Your task to perform on an android device: When is my next meeting? Image 0: 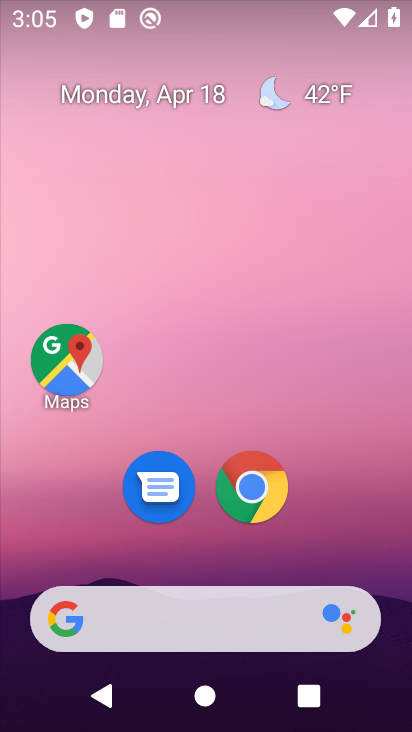
Step 0: drag from (218, 553) to (180, 80)
Your task to perform on an android device: When is my next meeting? Image 1: 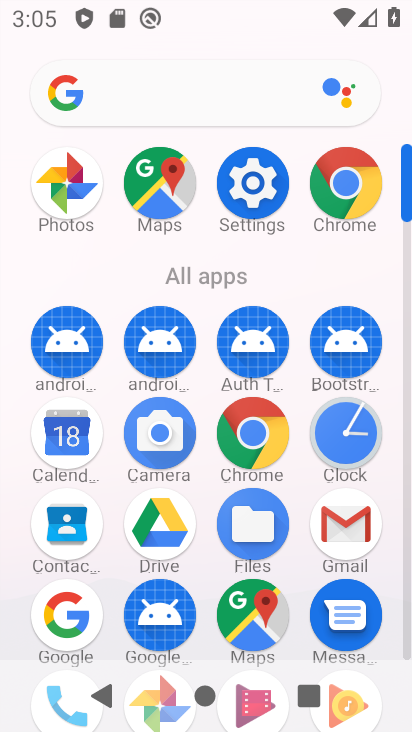
Step 1: click (87, 441)
Your task to perform on an android device: When is my next meeting? Image 2: 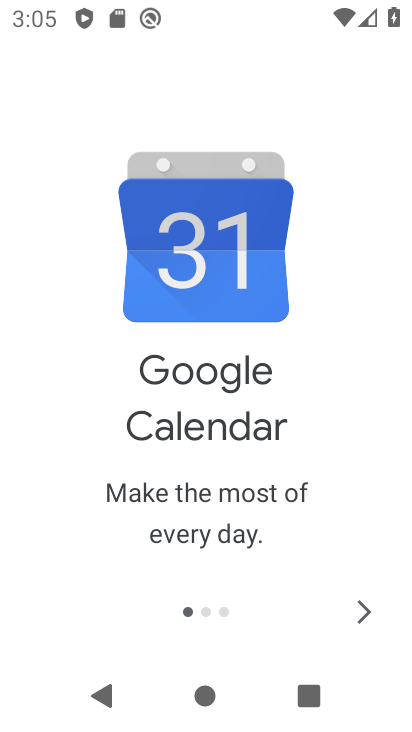
Step 2: click (357, 622)
Your task to perform on an android device: When is my next meeting? Image 3: 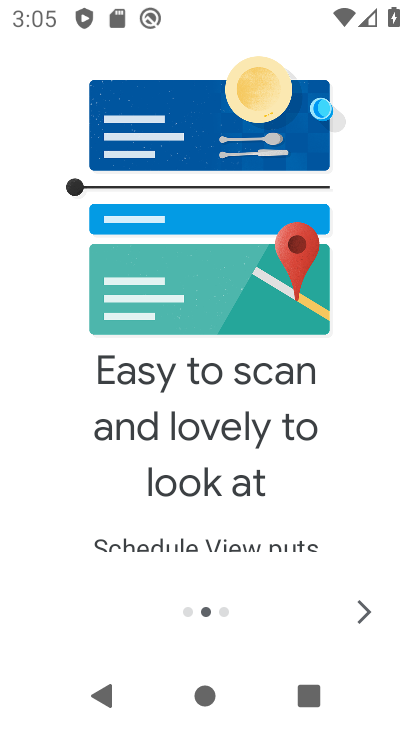
Step 3: click (362, 605)
Your task to perform on an android device: When is my next meeting? Image 4: 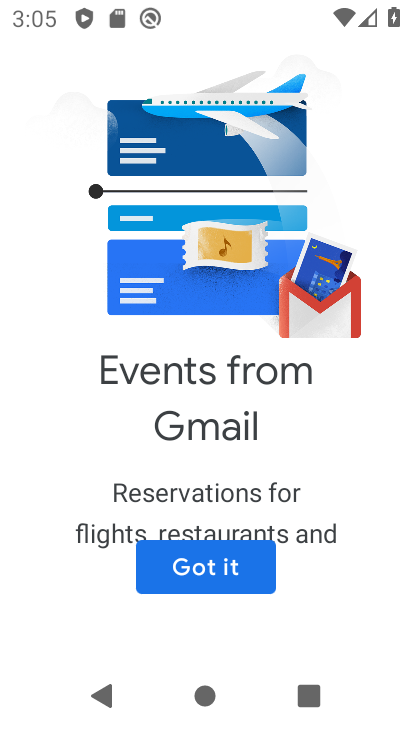
Step 4: click (193, 565)
Your task to perform on an android device: When is my next meeting? Image 5: 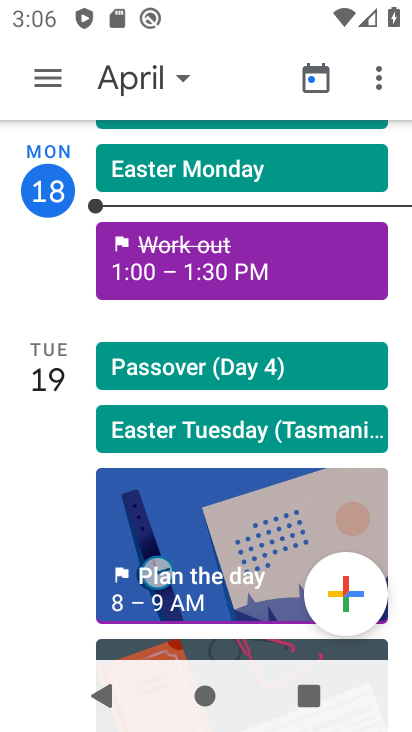
Step 5: drag from (48, 517) to (35, 174)
Your task to perform on an android device: When is my next meeting? Image 6: 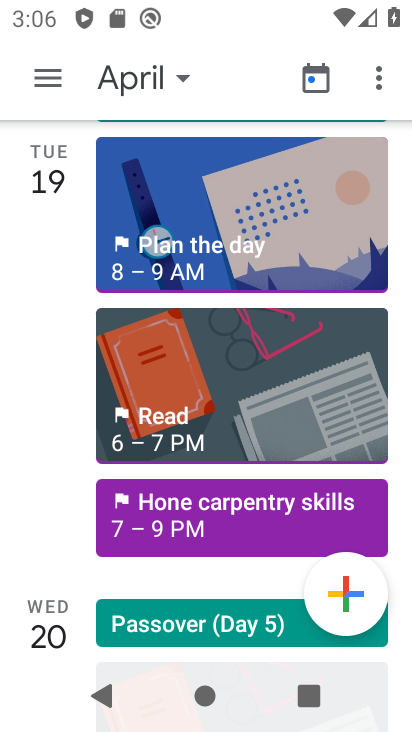
Step 6: click (148, 517)
Your task to perform on an android device: When is my next meeting? Image 7: 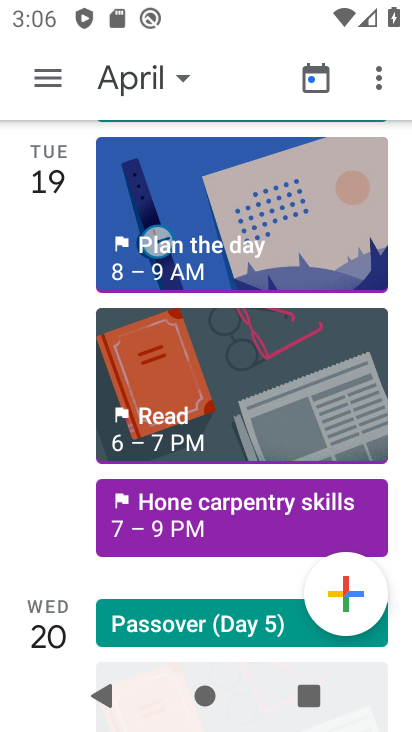
Step 7: task complete